Your task to perform on an android device: see tabs open on other devices in the chrome app Image 0: 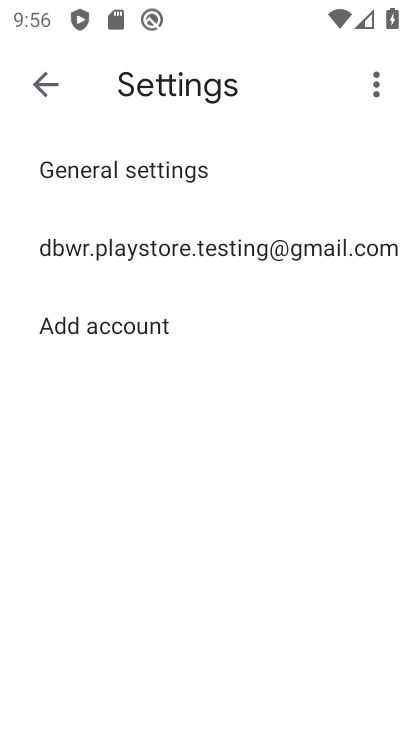
Step 0: click (43, 83)
Your task to perform on an android device: see tabs open on other devices in the chrome app Image 1: 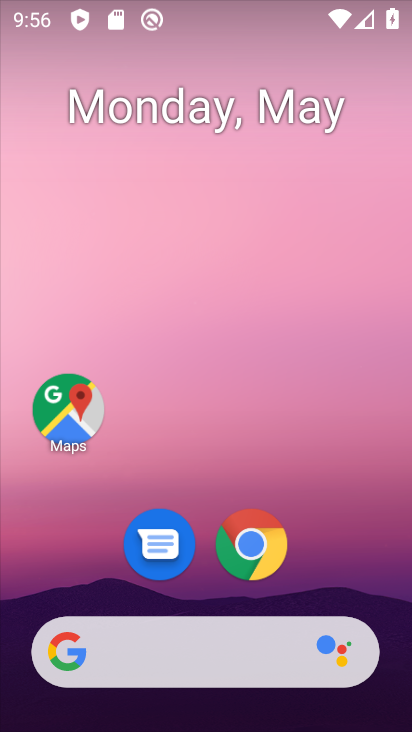
Step 1: drag from (290, 707) to (25, 114)
Your task to perform on an android device: see tabs open on other devices in the chrome app Image 2: 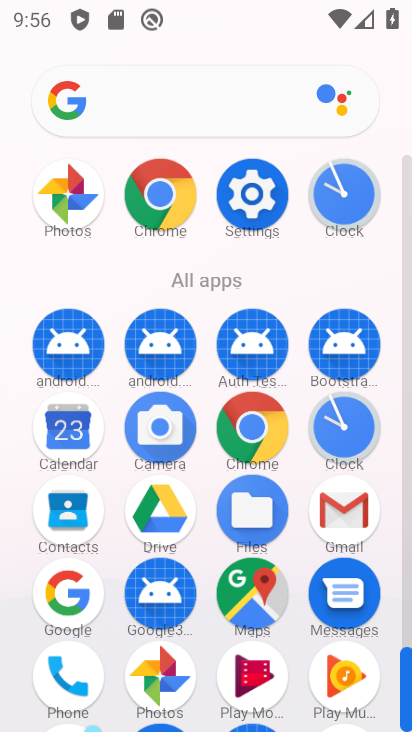
Step 2: click (232, 418)
Your task to perform on an android device: see tabs open on other devices in the chrome app Image 3: 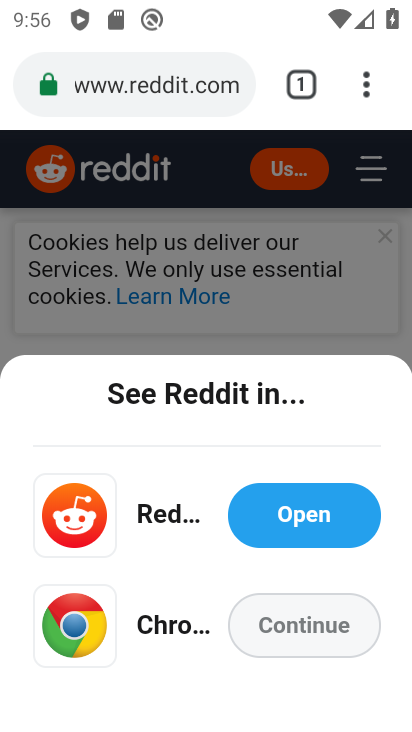
Step 3: drag from (361, 86) to (70, 399)
Your task to perform on an android device: see tabs open on other devices in the chrome app Image 4: 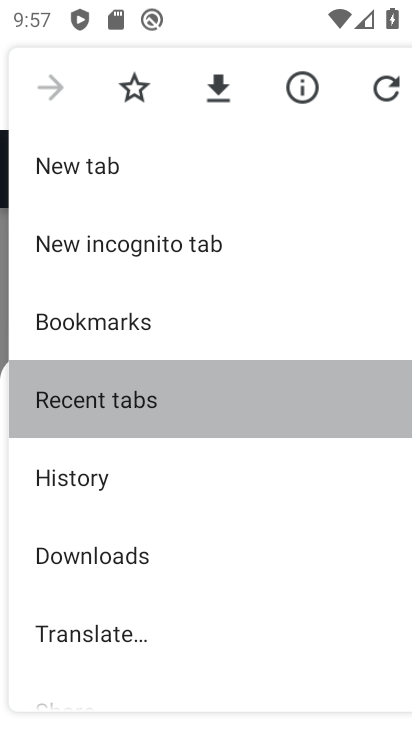
Step 4: click (74, 403)
Your task to perform on an android device: see tabs open on other devices in the chrome app Image 5: 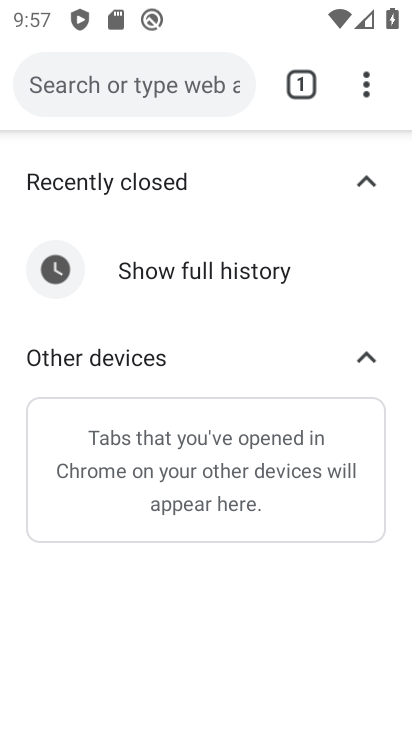
Step 5: task complete